Your task to perform on an android device: change the upload size in google photos Image 0: 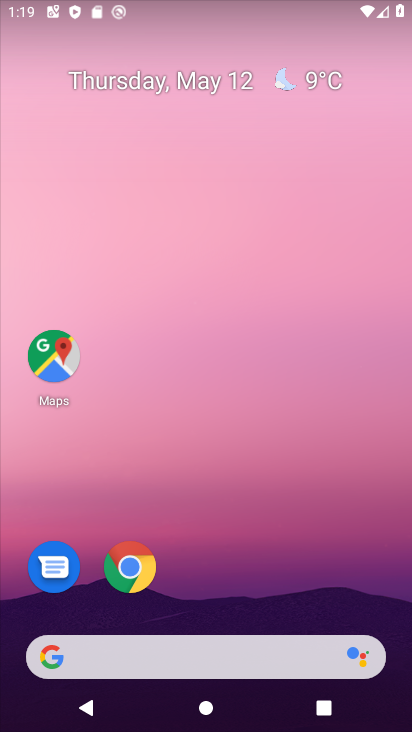
Step 0: drag from (218, 610) to (221, 26)
Your task to perform on an android device: change the upload size in google photos Image 1: 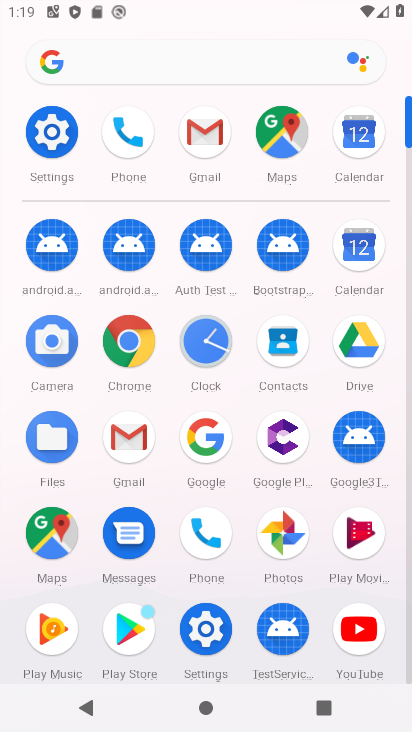
Step 1: click (274, 525)
Your task to perform on an android device: change the upload size in google photos Image 2: 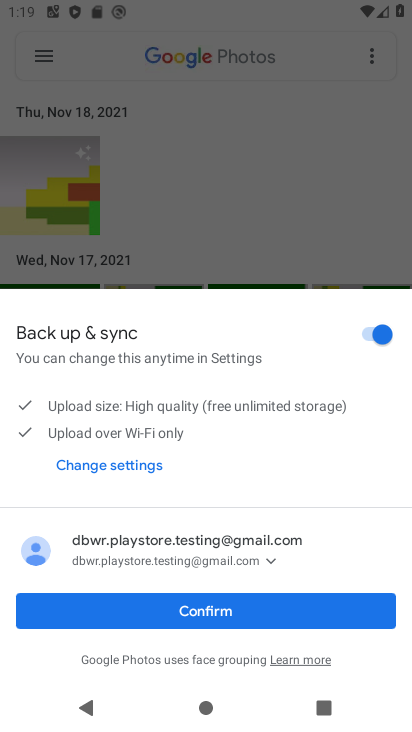
Step 2: click (215, 611)
Your task to perform on an android device: change the upload size in google photos Image 3: 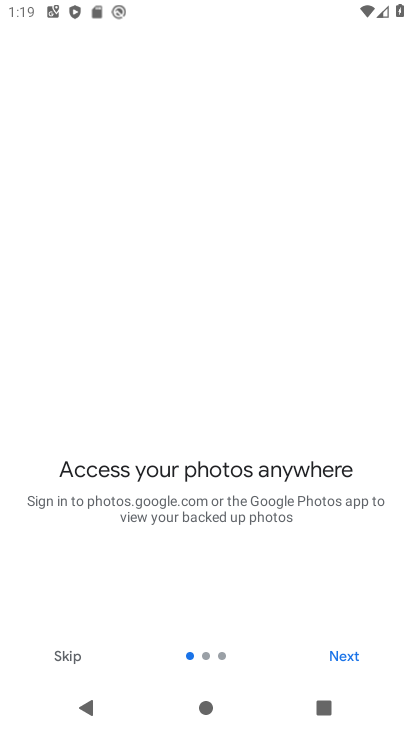
Step 3: click (347, 654)
Your task to perform on an android device: change the upload size in google photos Image 4: 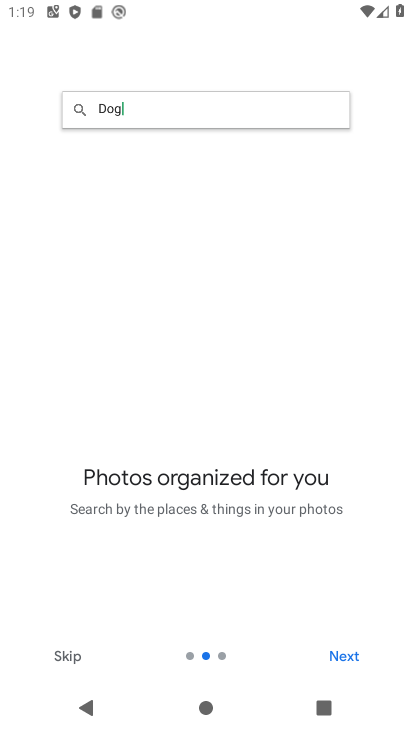
Step 4: click (343, 654)
Your task to perform on an android device: change the upload size in google photos Image 5: 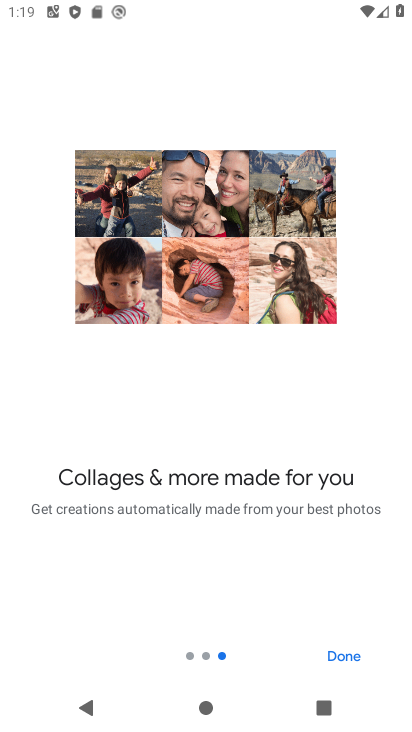
Step 5: click (343, 654)
Your task to perform on an android device: change the upload size in google photos Image 6: 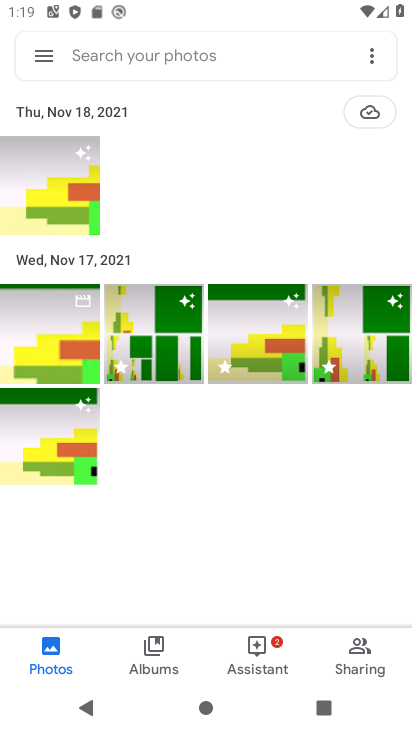
Step 6: click (40, 45)
Your task to perform on an android device: change the upload size in google photos Image 7: 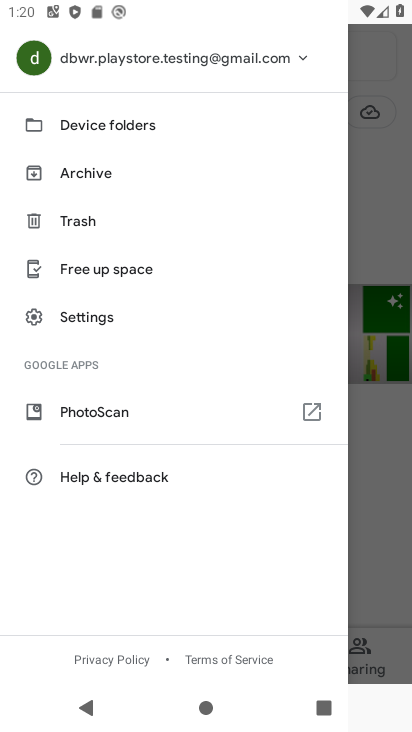
Step 7: click (97, 313)
Your task to perform on an android device: change the upload size in google photos Image 8: 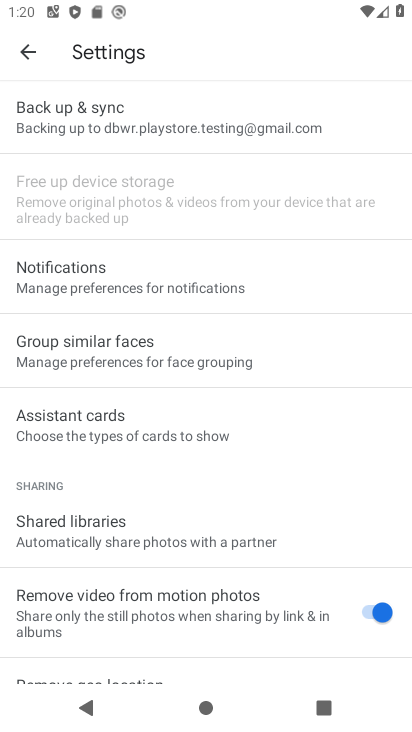
Step 8: click (88, 109)
Your task to perform on an android device: change the upload size in google photos Image 9: 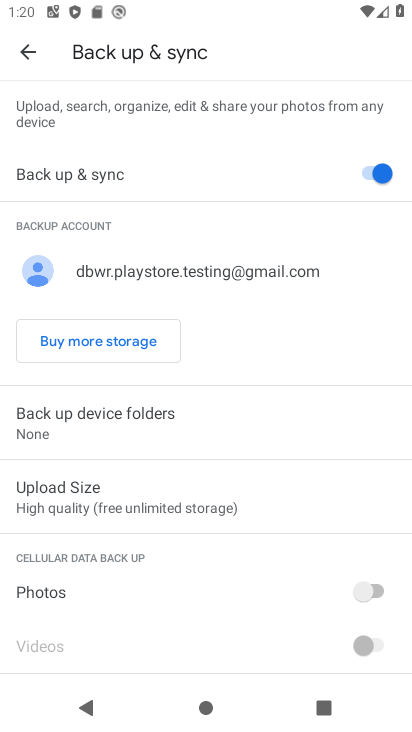
Step 9: click (120, 492)
Your task to perform on an android device: change the upload size in google photos Image 10: 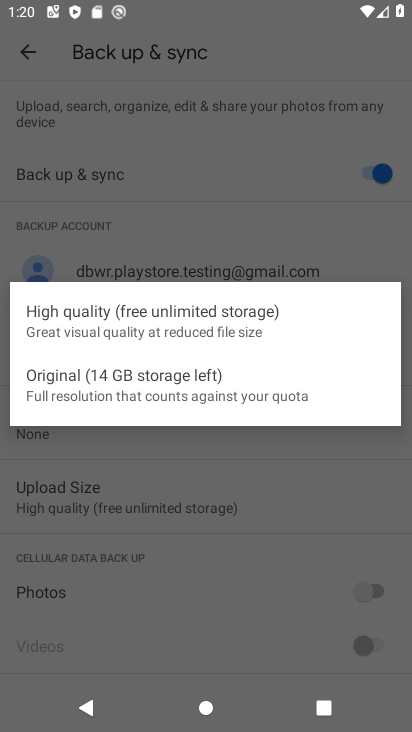
Step 10: click (183, 389)
Your task to perform on an android device: change the upload size in google photos Image 11: 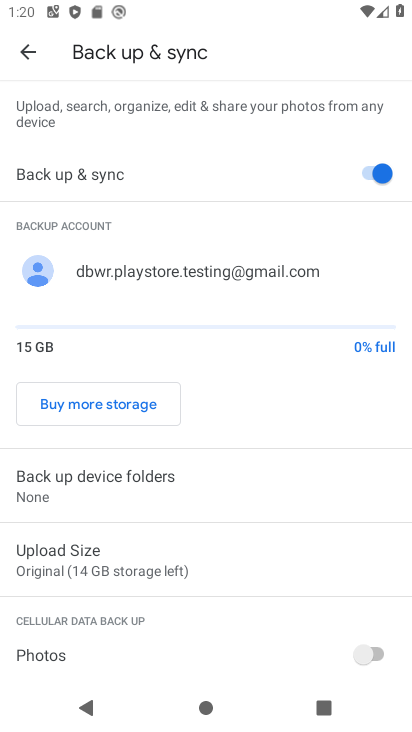
Step 11: task complete